Your task to perform on an android device: check google app version Image 0: 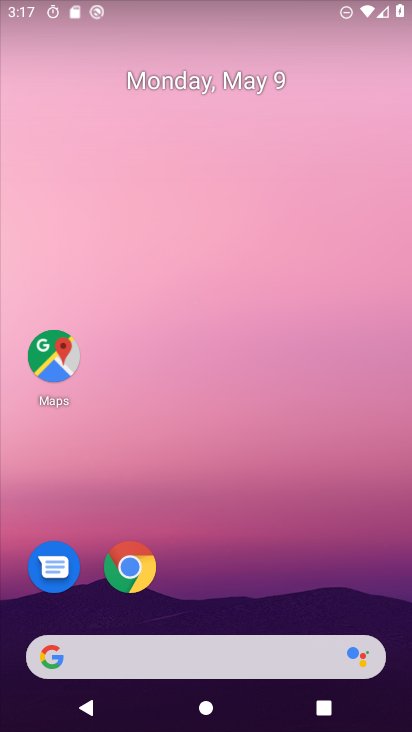
Step 0: drag from (247, 591) to (279, 39)
Your task to perform on an android device: check google app version Image 1: 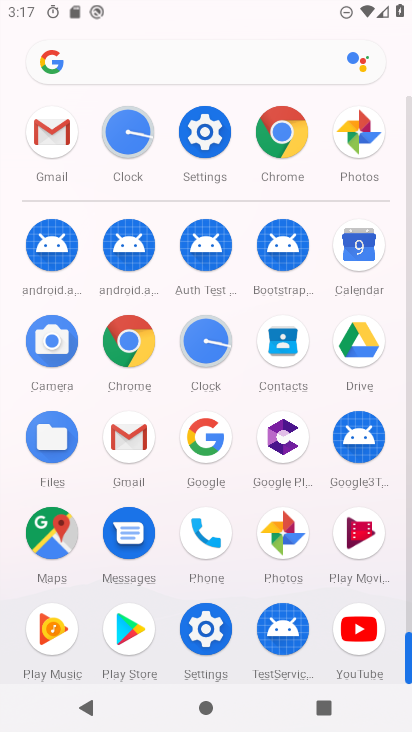
Step 1: click (208, 437)
Your task to perform on an android device: check google app version Image 2: 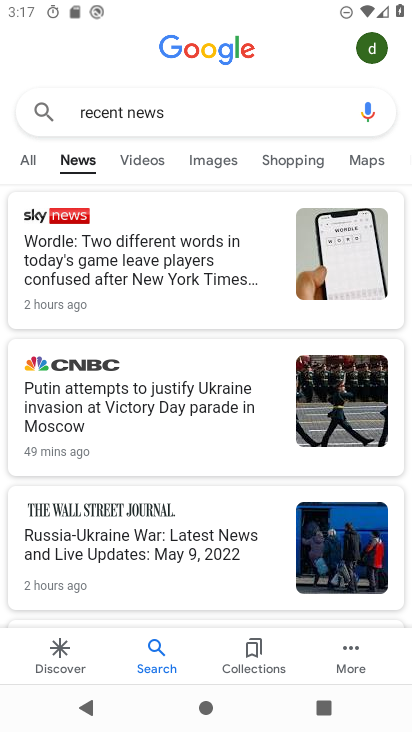
Step 2: click (348, 655)
Your task to perform on an android device: check google app version Image 3: 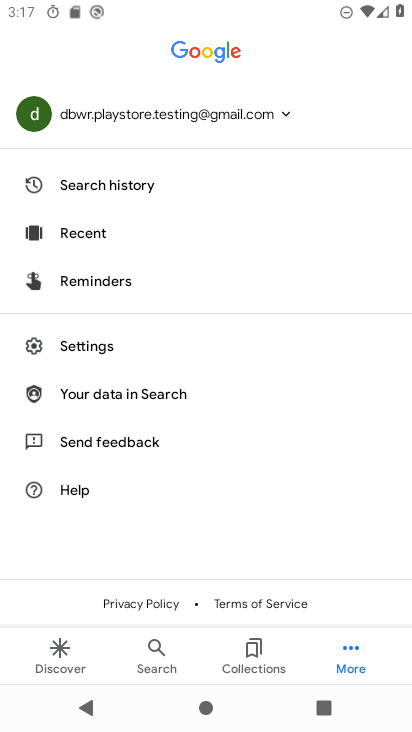
Step 3: click (92, 340)
Your task to perform on an android device: check google app version Image 4: 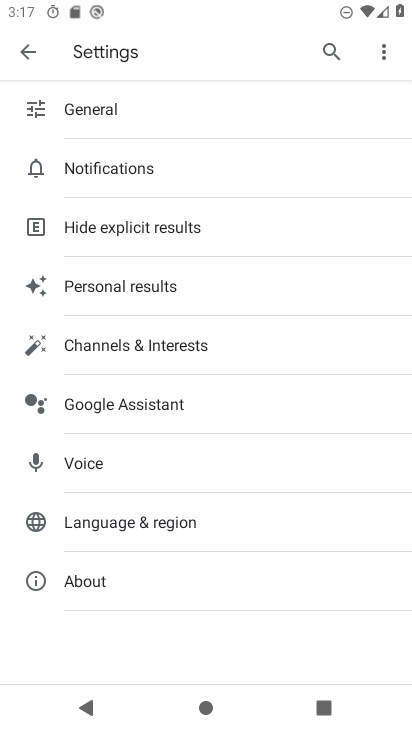
Step 4: click (129, 576)
Your task to perform on an android device: check google app version Image 5: 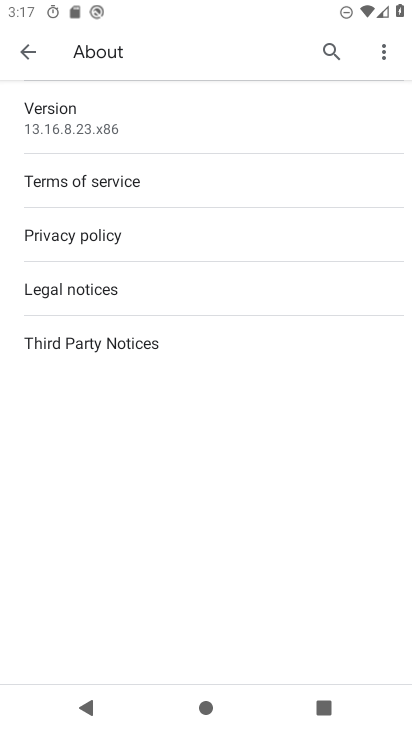
Step 5: click (110, 129)
Your task to perform on an android device: check google app version Image 6: 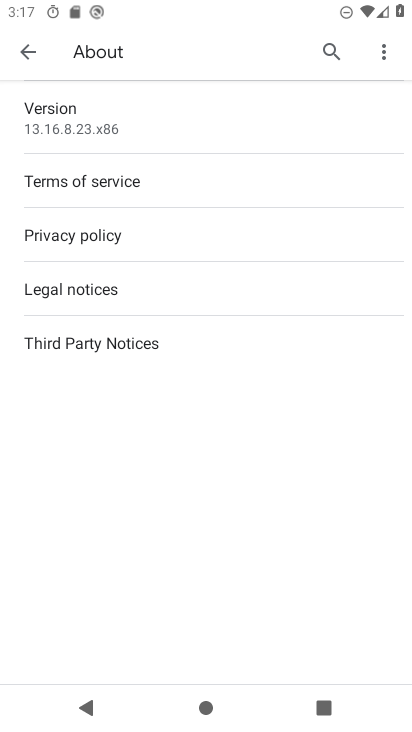
Step 6: task complete